Your task to perform on an android device: turn on airplane mode Image 0: 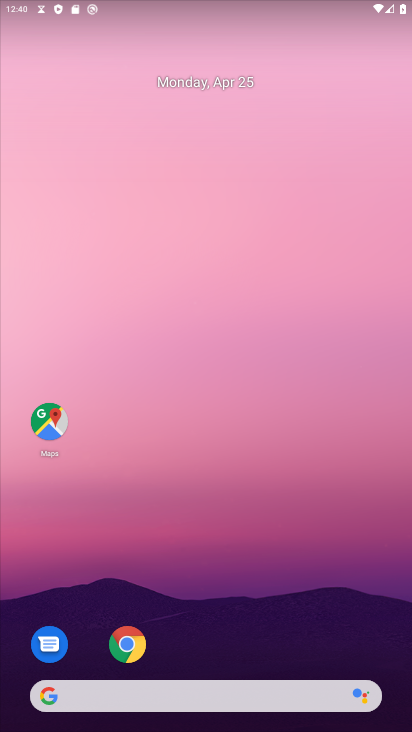
Step 0: drag from (332, 656) to (320, 32)
Your task to perform on an android device: turn on airplane mode Image 1: 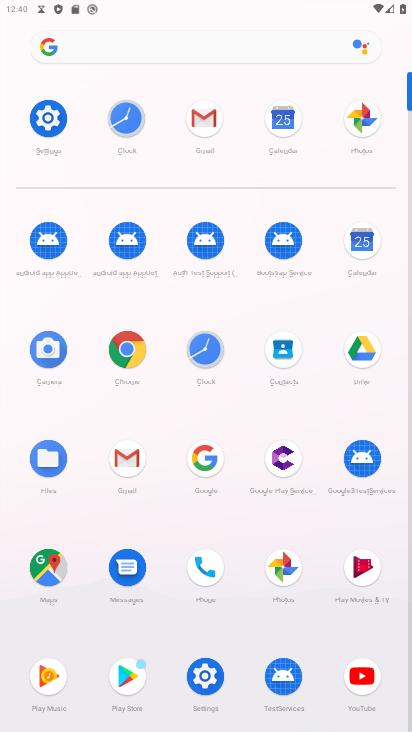
Step 1: click (46, 118)
Your task to perform on an android device: turn on airplane mode Image 2: 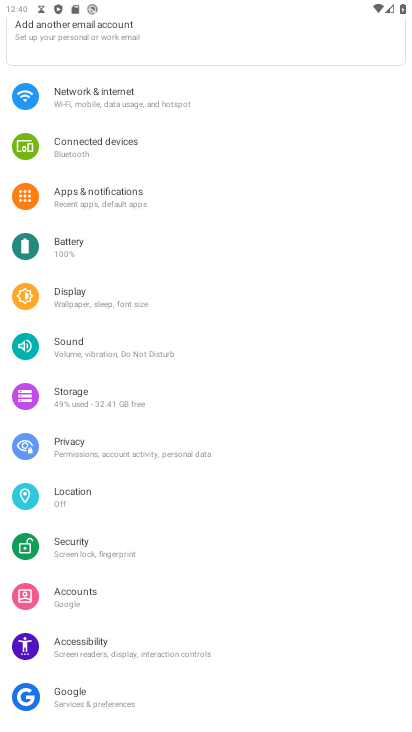
Step 2: click (99, 111)
Your task to perform on an android device: turn on airplane mode Image 3: 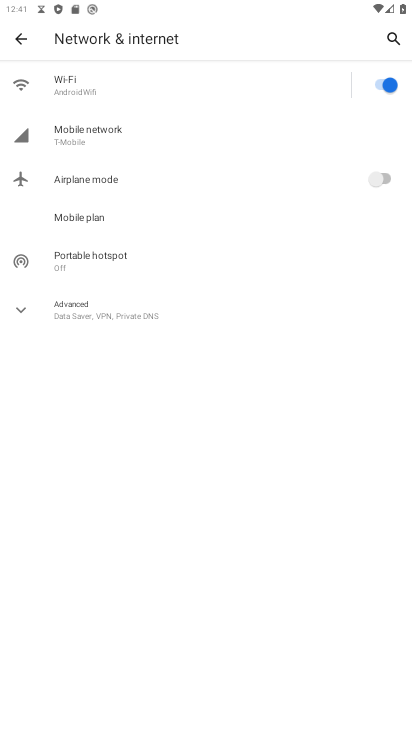
Step 3: click (376, 182)
Your task to perform on an android device: turn on airplane mode Image 4: 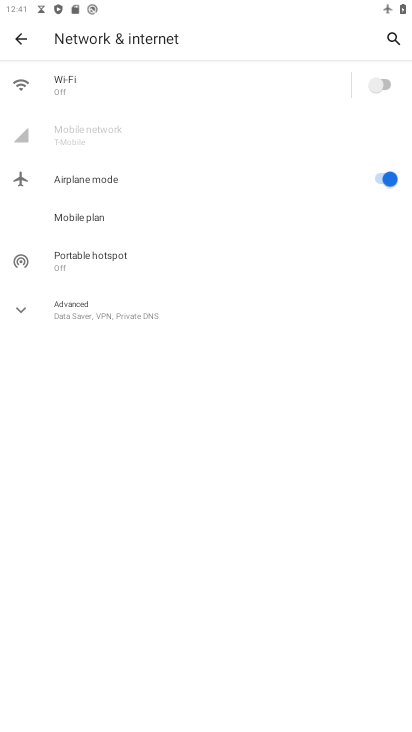
Step 4: task complete